Your task to perform on an android device: turn on improve location accuracy Image 0: 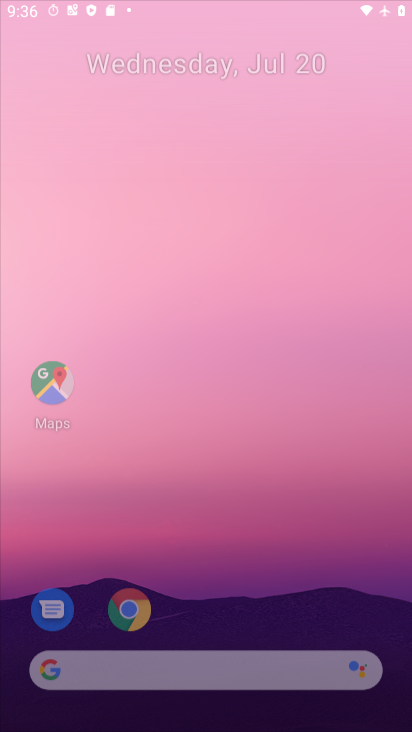
Step 0: press home button
Your task to perform on an android device: turn on improve location accuracy Image 1: 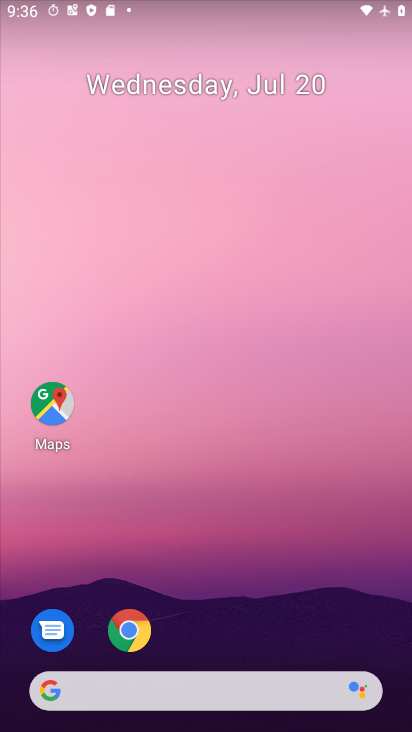
Step 1: drag from (201, 683) to (245, 291)
Your task to perform on an android device: turn on improve location accuracy Image 2: 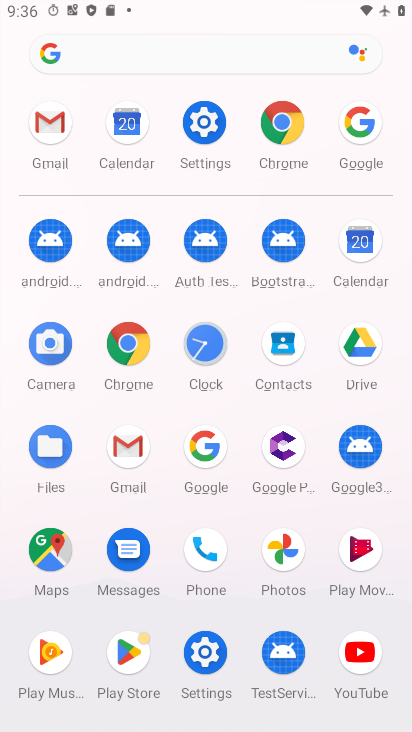
Step 2: click (210, 147)
Your task to perform on an android device: turn on improve location accuracy Image 3: 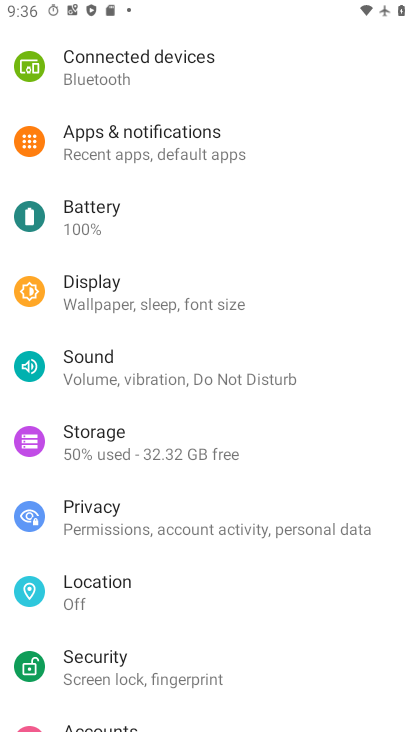
Step 3: click (139, 593)
Your task to perform on an android device: turn on improve location accuracy Image 4: 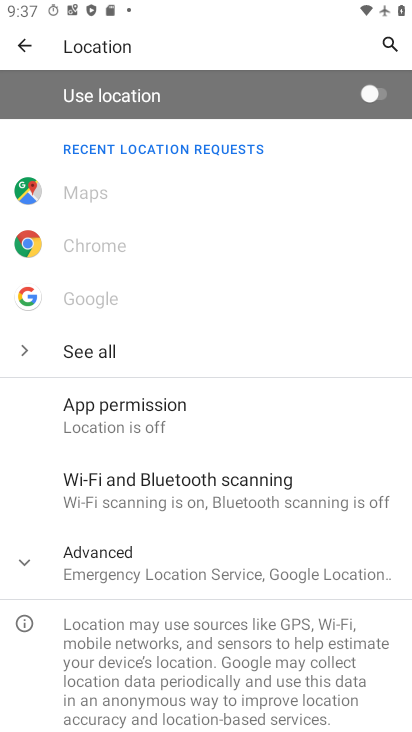
Step 4: click (130, 569)
Your task to perform on an android device: turn on improve location accuracy Image 5: 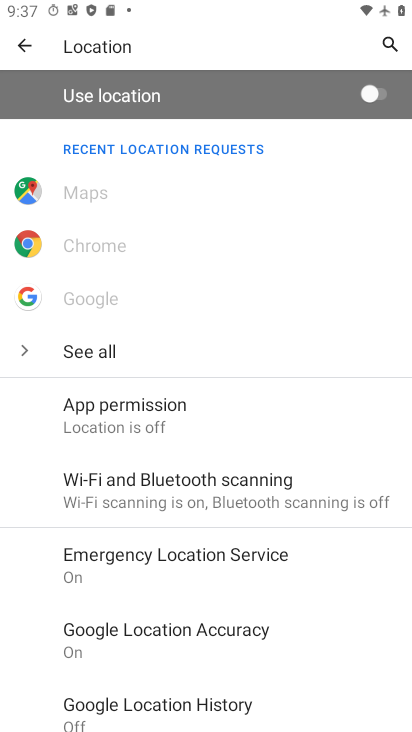
Step 5: click (266, 639)
Your task to perform on an android device: turn on improve location accuracy Image 6: 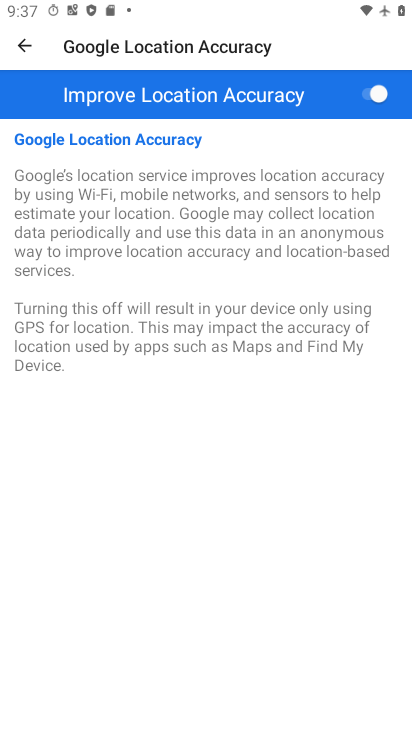
Step 6: task complete